Your task to perform on an android device: refresh tabs in the chrome app Image 0: 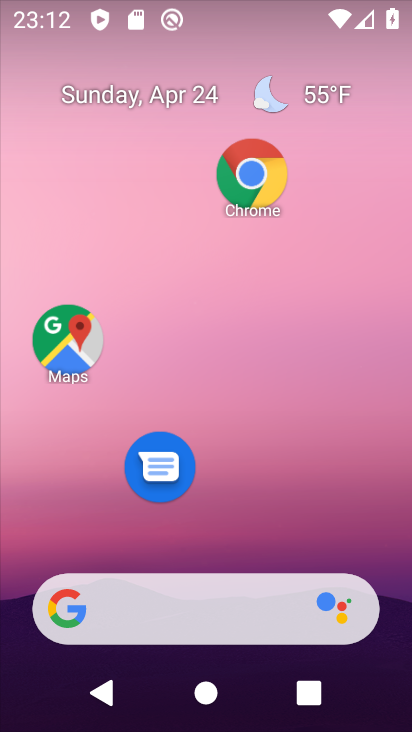
Step 0: click (252, 181)
Your task to perform on an android device: refresh tabs in the chrome app Image 1: 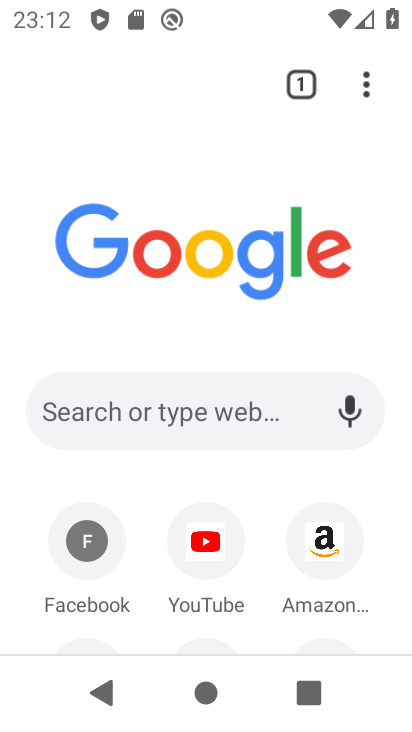
Step 1: click (360, 87)
Your task to perform on an android device: refresh tabs in the chrome app Image 2: 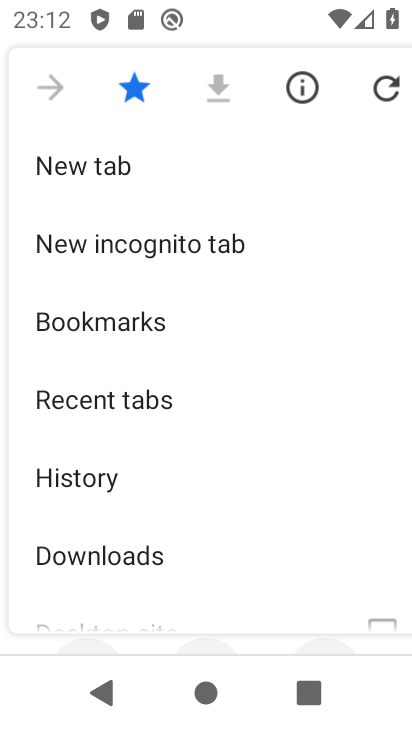
Step 2: click (379, 100)
Your task to perform on an android device: refresh tabs in the chrome app Image 3: 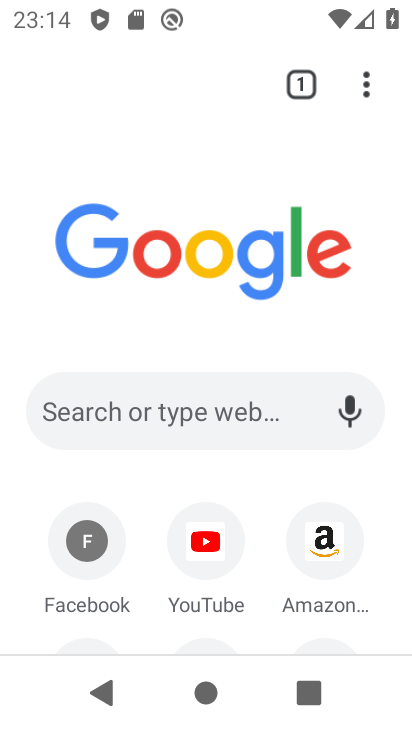
Step 3: task complete